Your task to perform on an android device: Go to Wikipedia Image 0: 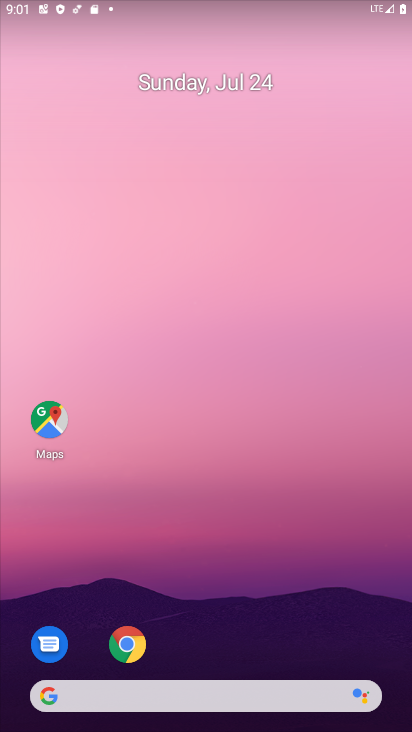
Step 0: press home button
Your task to perform on an android device: Go to Wikipedia Image 1: 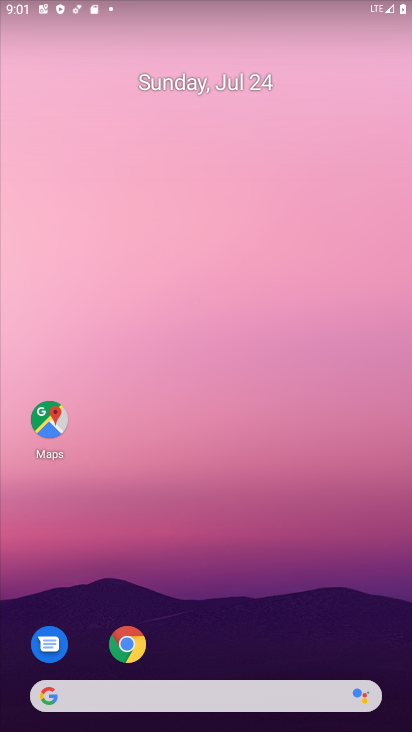
Step 1: click (124, 637)
Your task to perform on an android device: Go to Wikipedia Image 2: 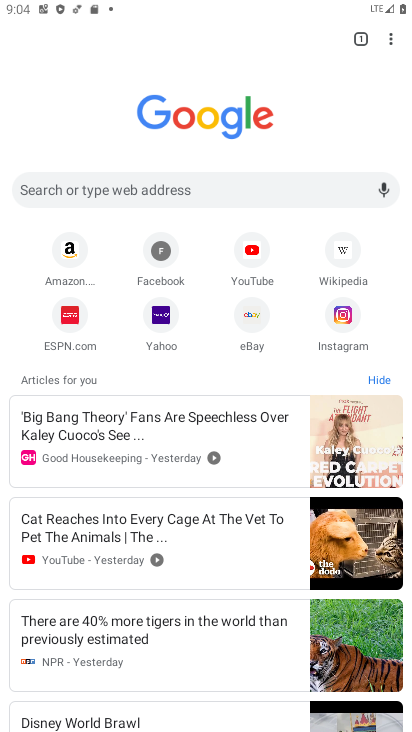
Step 2: click (343, 255)
Your task to perform on an android device: Go to Wikipedia Image 3: 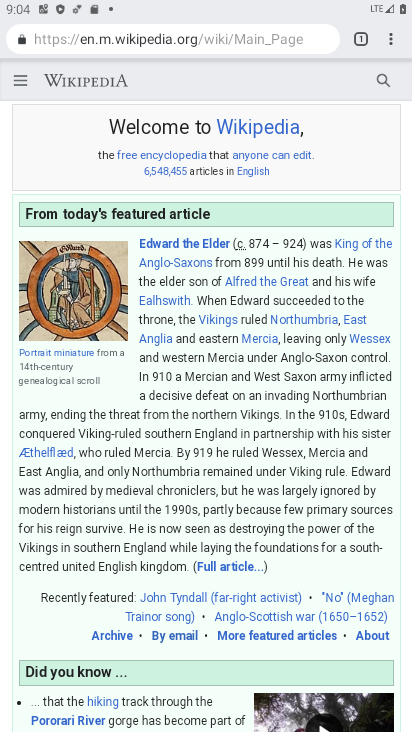
Step 3: task complete